Your task to perform on an android device: What's the weather going to be tomorrow? Image 0: 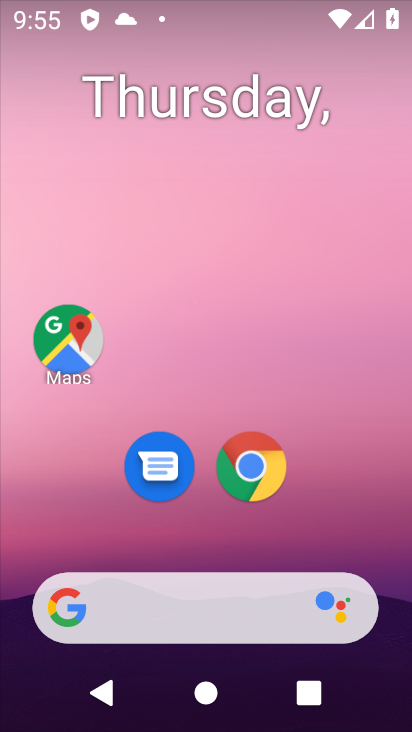
Step 0: drag from (284, 553) to (340, 6)
Your task to perform on an android device: What's the weather going to be tomorrow? Image 1: 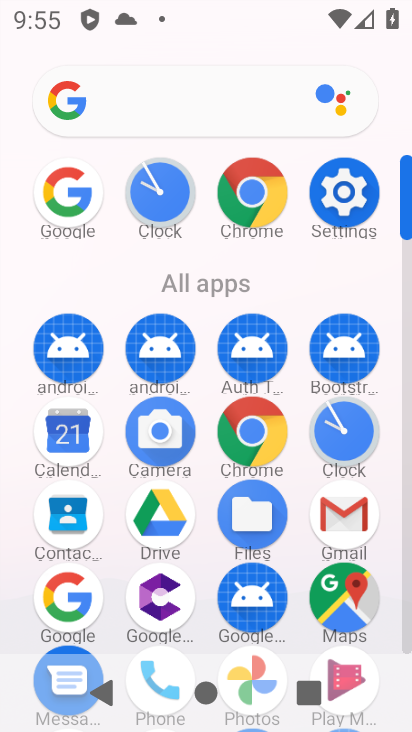
Step 1: click (75, 589)
Your task to perform on an android device: What's the weather going to be tomorrow? Image 2: 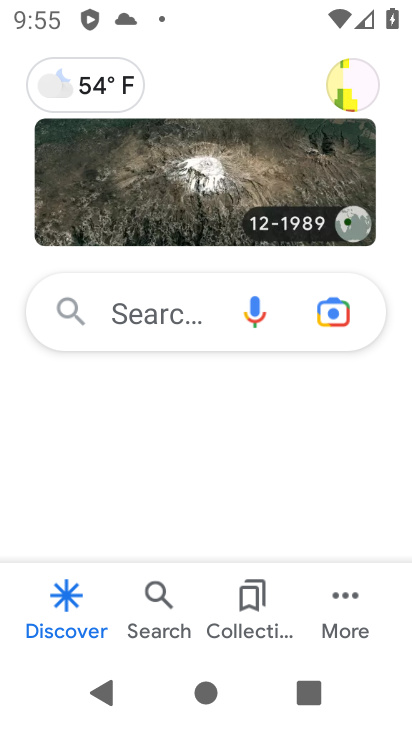
Step 2: click (173, 311)
Your task to perform on an android device: What's the weather going to be tomorrow? Image 3: 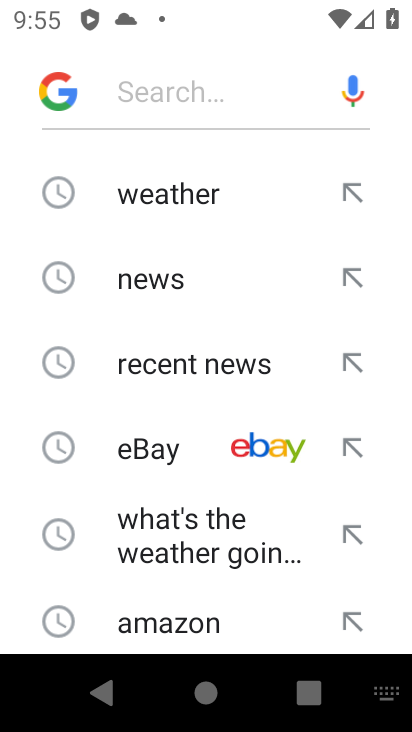
Step 3: click (201, 195)
Your task to perform on an android device: What's the weather going to be tomorrow? Image 4: 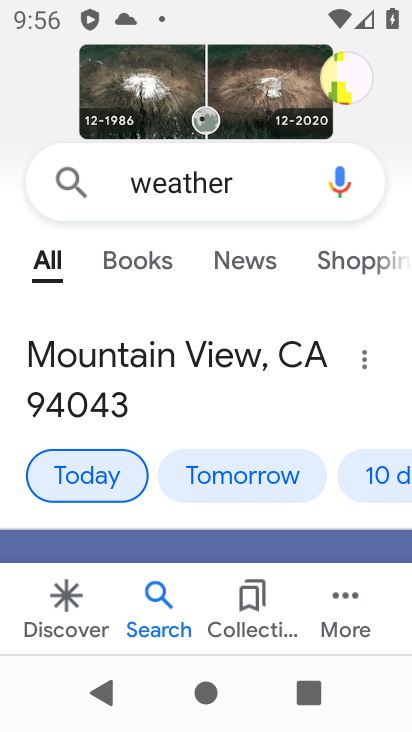
Step 4: task complete